Your task to perform on an android device: Open calendar and show me the fourth week of next month Image 0: 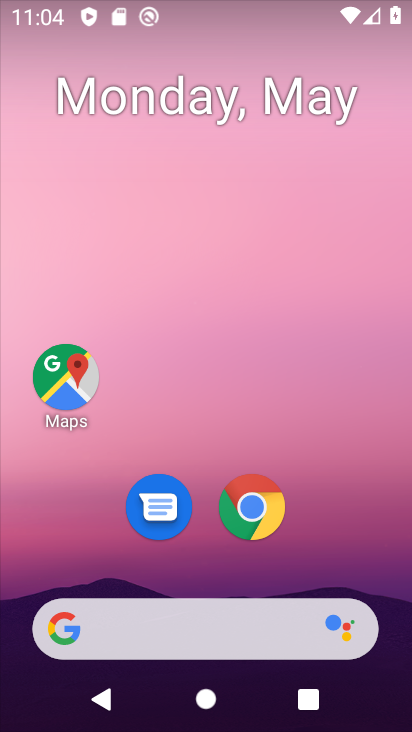
Step 0: drag from (332, 383) to (324, 279)
Your task to perform on an android device: Open calendar and show me the fourth week of next month Image 1: 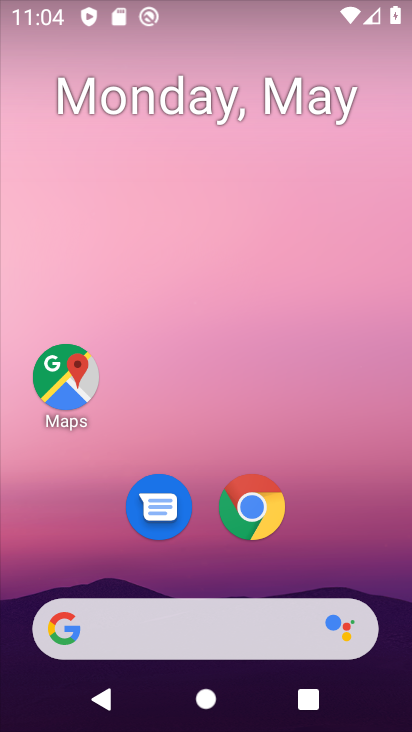
Step 1: drag from (273, 511) to (315, 212)
Your task to perform on an android device: Open calendar and show me the fourth week of next month Image 2: 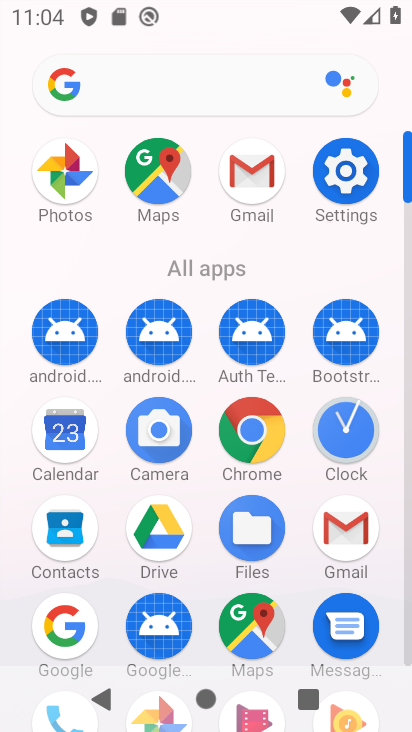
Step 2: click (61, 416)
Your task to perform on an android device: Open calendar and show me the fourth week of next month Image 3: 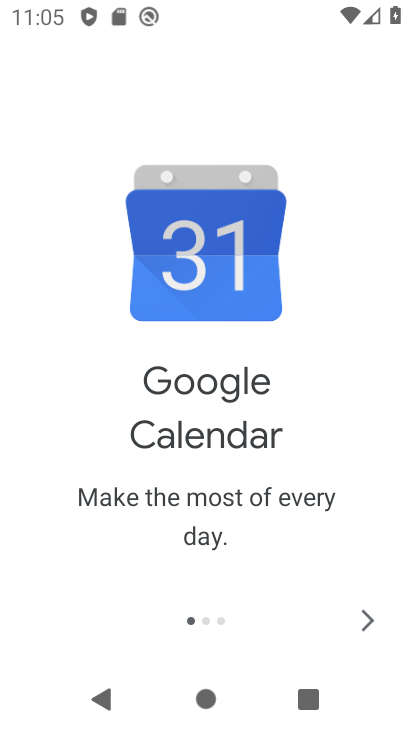
Step 3: click (339, 624)
Your task to perform on an android device: Open calendar and show me the fourth week of next month Image 4: 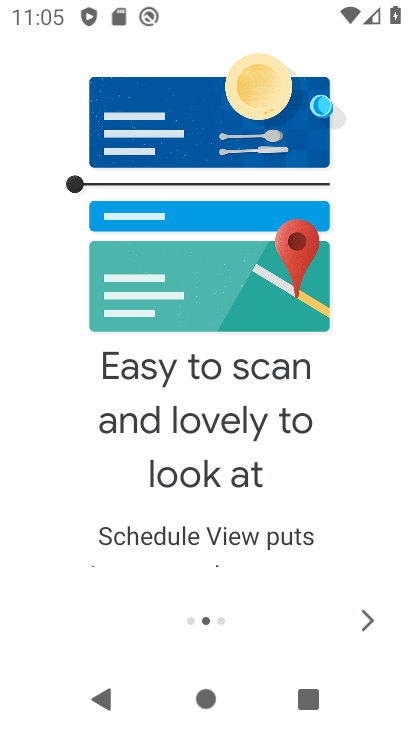
Step 4: click (354, 616)
Your task to perform on an android device: Open calendar and show me the fourth week of next month Image 5: 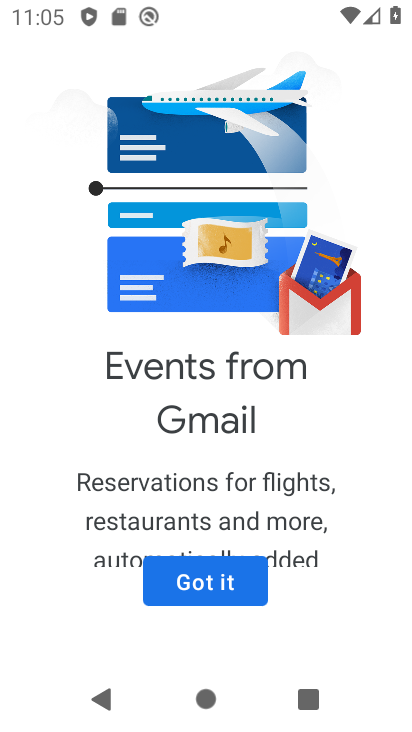
Step 5: drag from (134, 580) to (232, 580)
Your task to perform on an android device: Open calendar and show me the fourth week of next month Image 6: 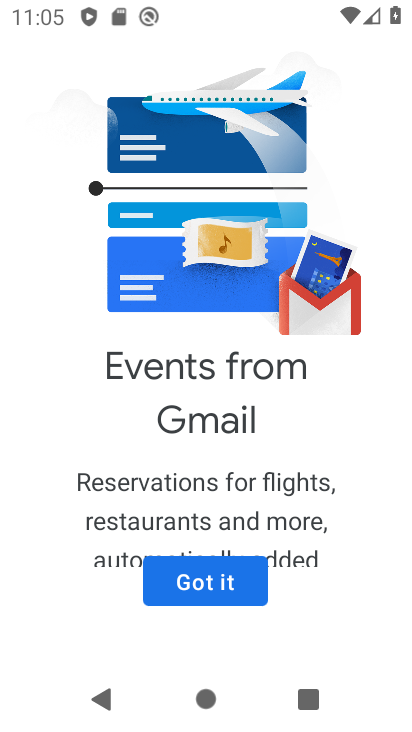
Step 6: click (222, 563)
Your task to perform on an android device: Open calendar and show me the fourth week of next month Image 7: 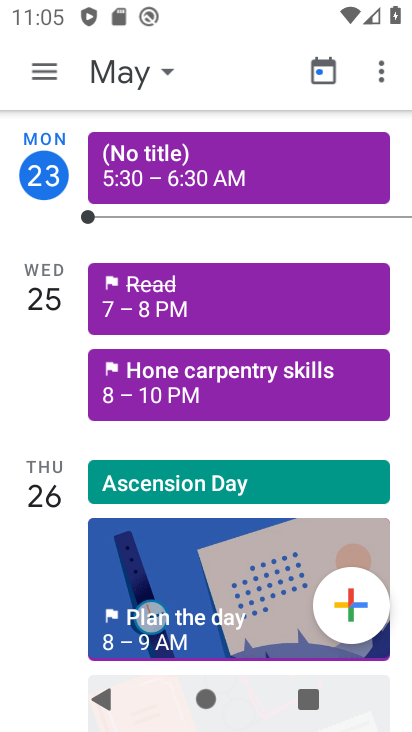
Step 7: task complete